Your task to perform on an android device: Go to Google Image 0: 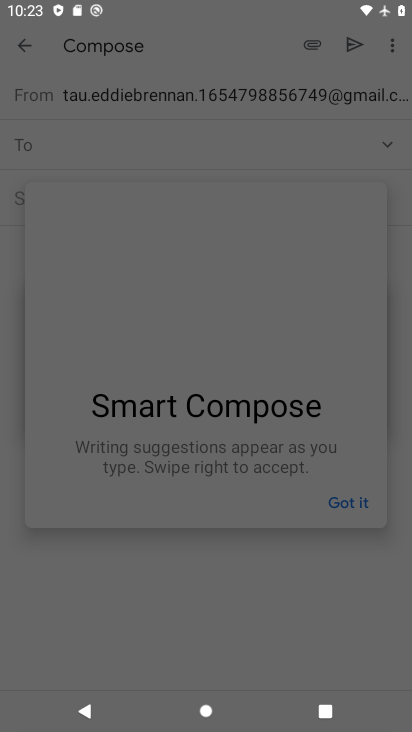
Step 0: press home button
Your task to perform on an android device: Go to Google Image 1: 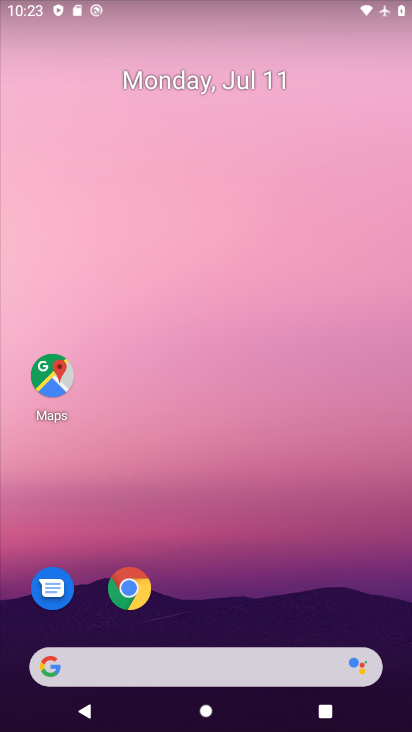
Step 1: drag from (173, 587) to (319, 0)
Your task to perform on an android device: Go to Google Image 2: 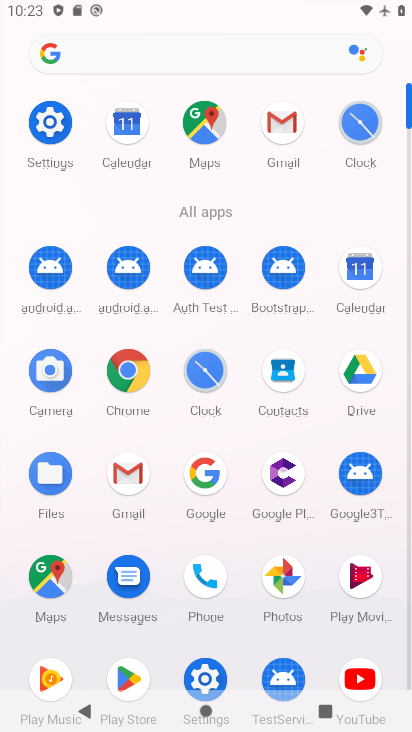
Step 2: click (208, 483)
Your task to perform on an android device: Go to Google Image 3: 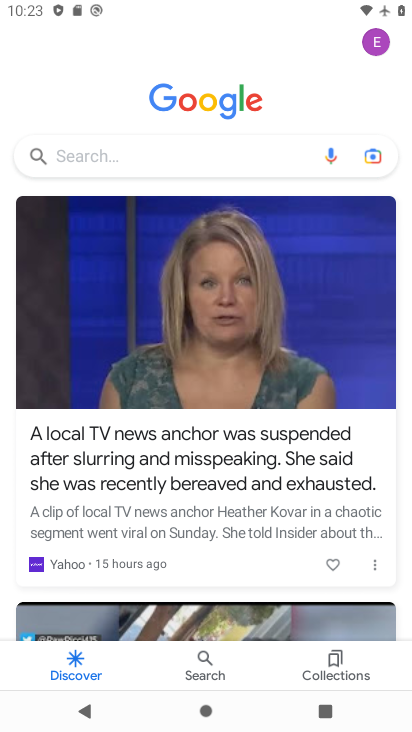
Step 3: task complete